Your task to perform on an android device: find which apps use the phone's location Image 0: 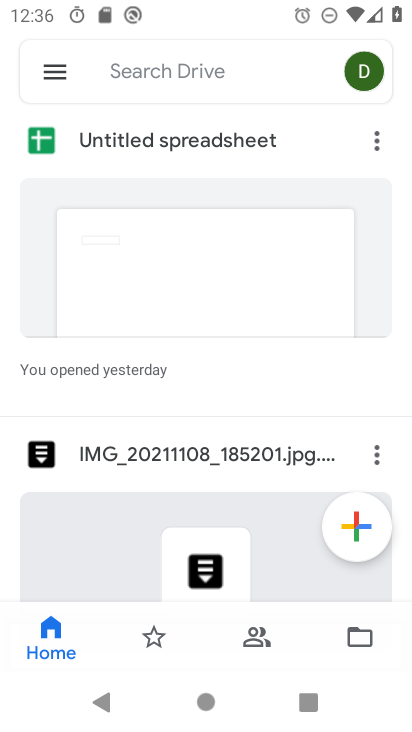
Step 0: press home button
Your task to perform on an android device: find which apps use the phone's location Image 1: 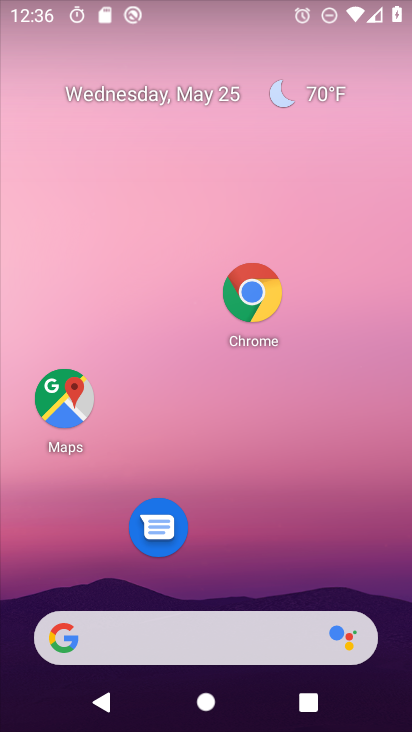
Step 1: drag from (249, 546) to (228, 61)
Your task to perform on an android device: find which apps use the phone's location Image 2: 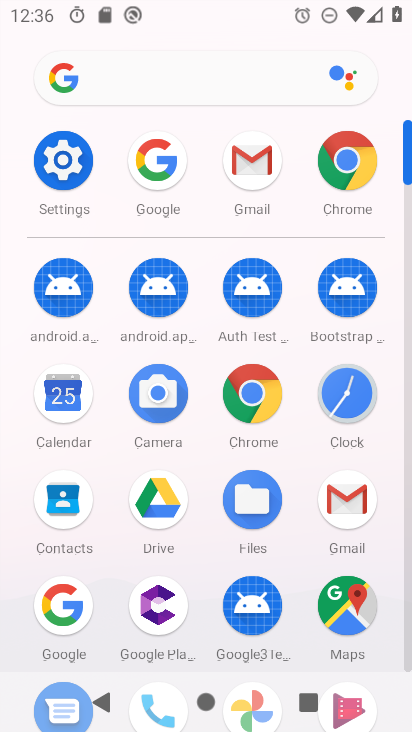
Step 2: click (69, 156)
Your task to perform on an android device: find which apps use the phone's location Image 3: 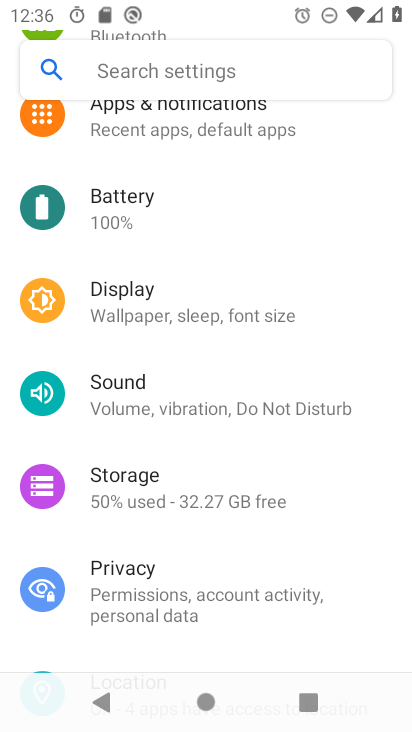
Step 3: drag from (221, 163) to (255, 4)
Your task to perform on an android device: find which apps use the phone's location Image 4: 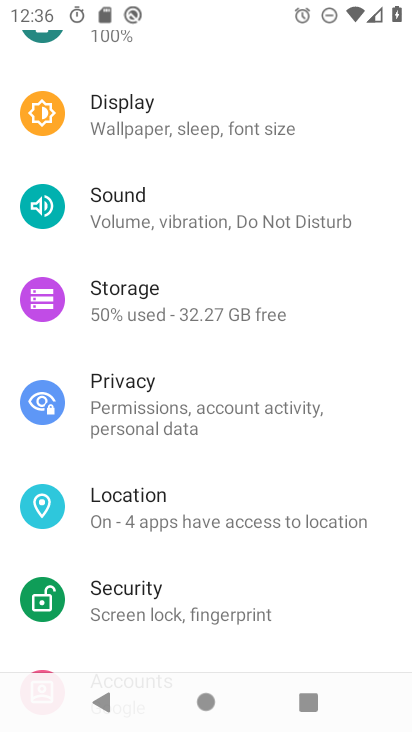
Step 4: click (201, 496)
Your task to perform on an android device: find which apps use the phone's location Image 5: 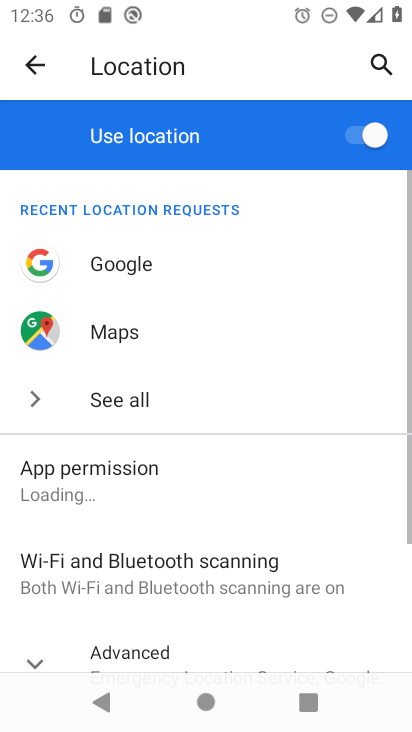
Step 5: click (90, 488)
Your task to perform on an android device: find which apps use the phone's location Image 6: 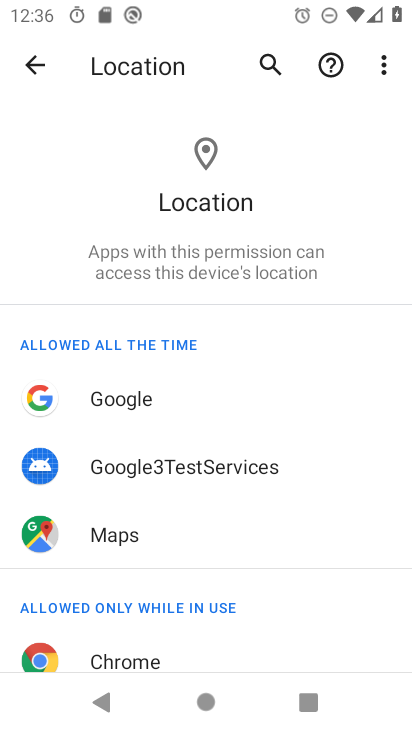
Step 6: task complete